Your task to perform on an android device: open app "Duolingo: language lessons" Image 0: 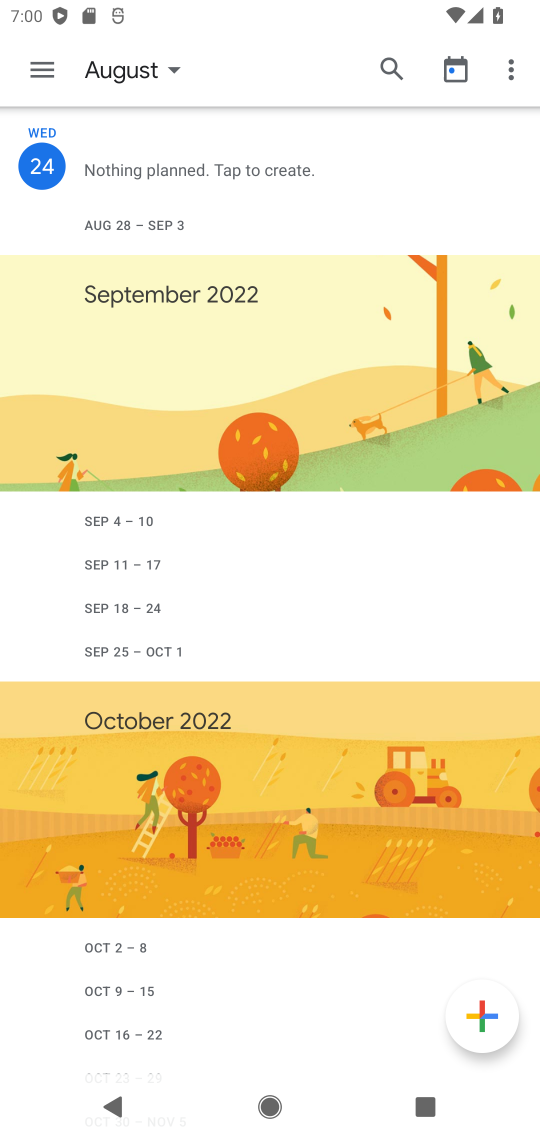
Step 0: press home button
Your task to perform on an android device: open app "Duolingo: language lessons" Image 1: 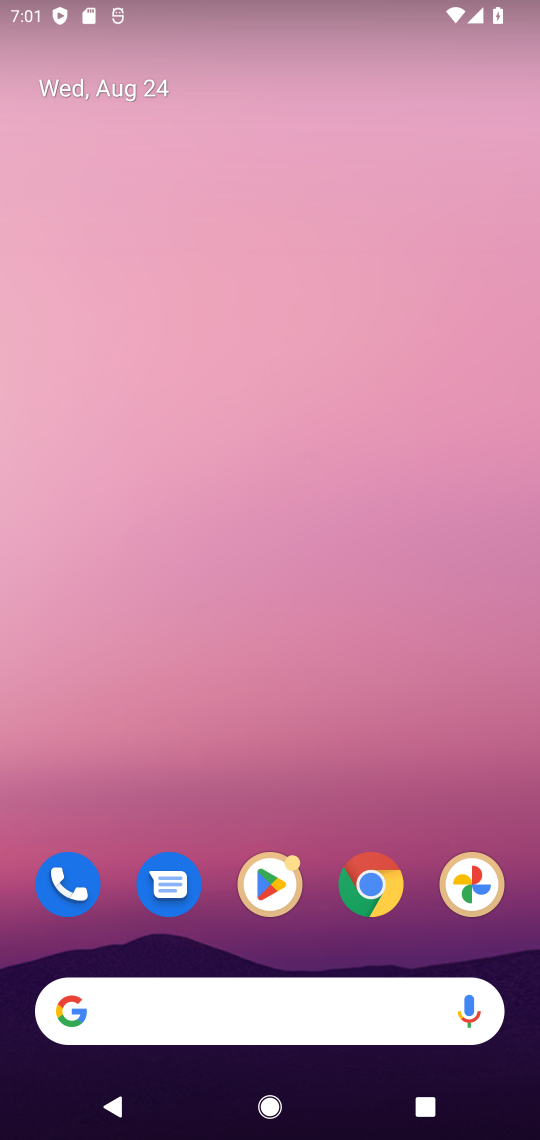
Step 1: click (266, 881)
Your task to perform on an android device: open app "Duolingo: language lessons" Image 2: 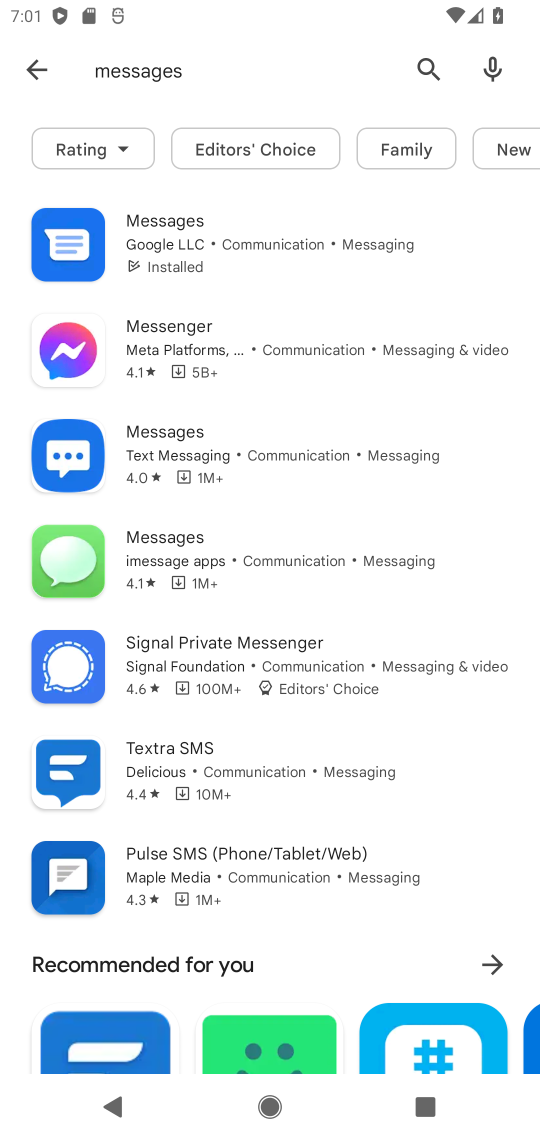
Step 2: click (445, 63)
Your task to perform on an android device: open app "Duolingo: language lessons" Image 3: 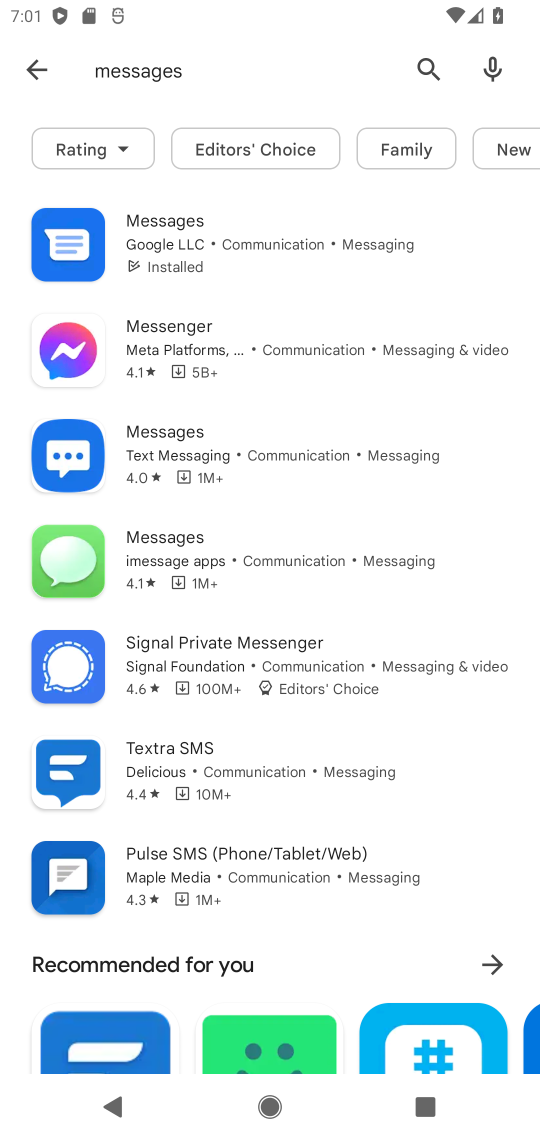
Step 3: click (430, 71)
Your task to perform on an android device: open app "Duolingo: language lessons" Image 4: 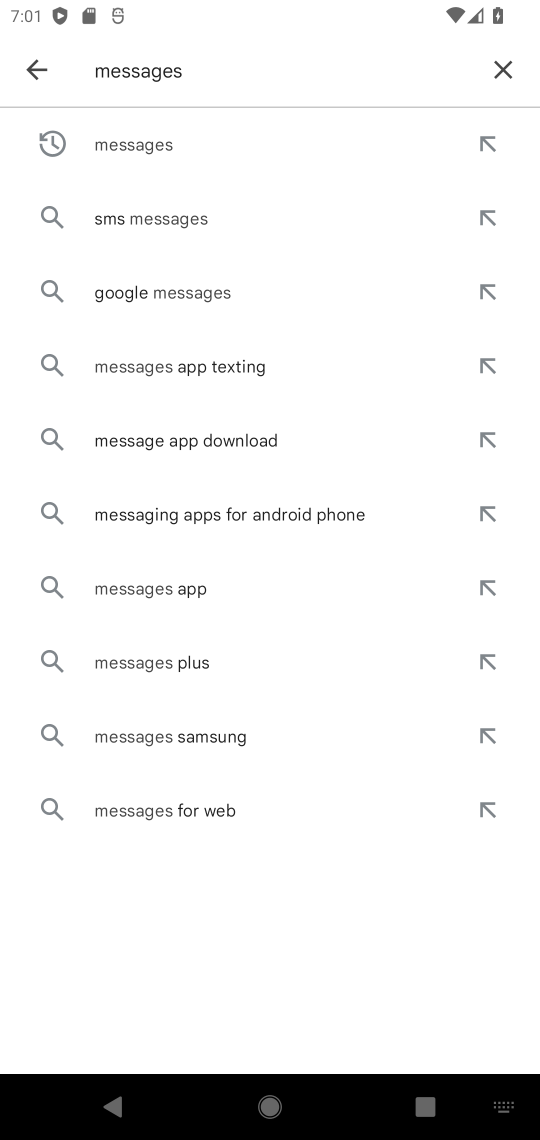
Step 4: click (503, 74)
Your task to perform on an android device: open app "Duolingo: language lessons" Image 5: 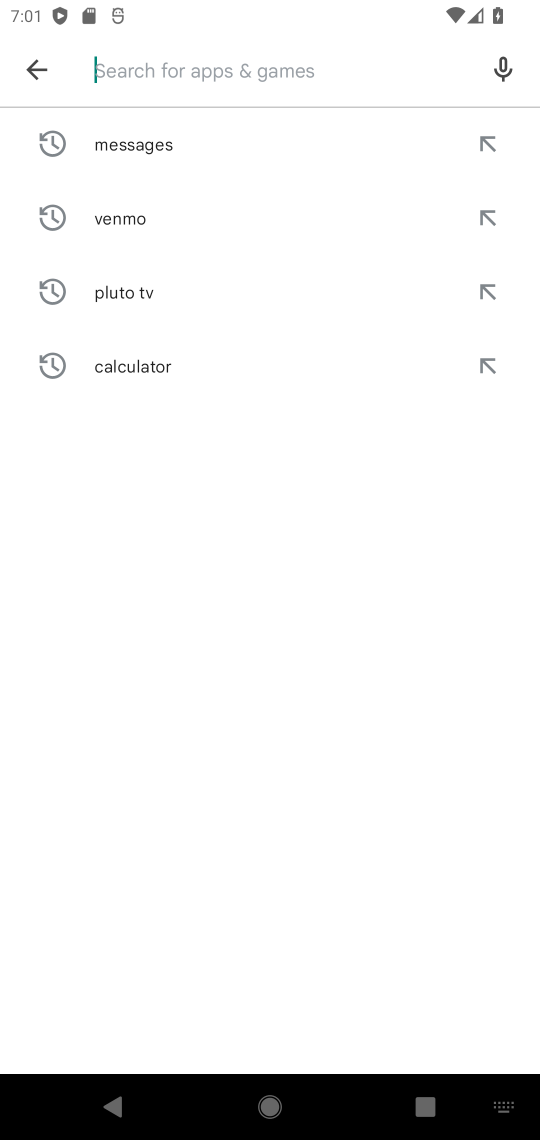
Step 5: type "duolingo"
Your task to perform on an android device: open app "Duolingo: language lessons" Image 6: 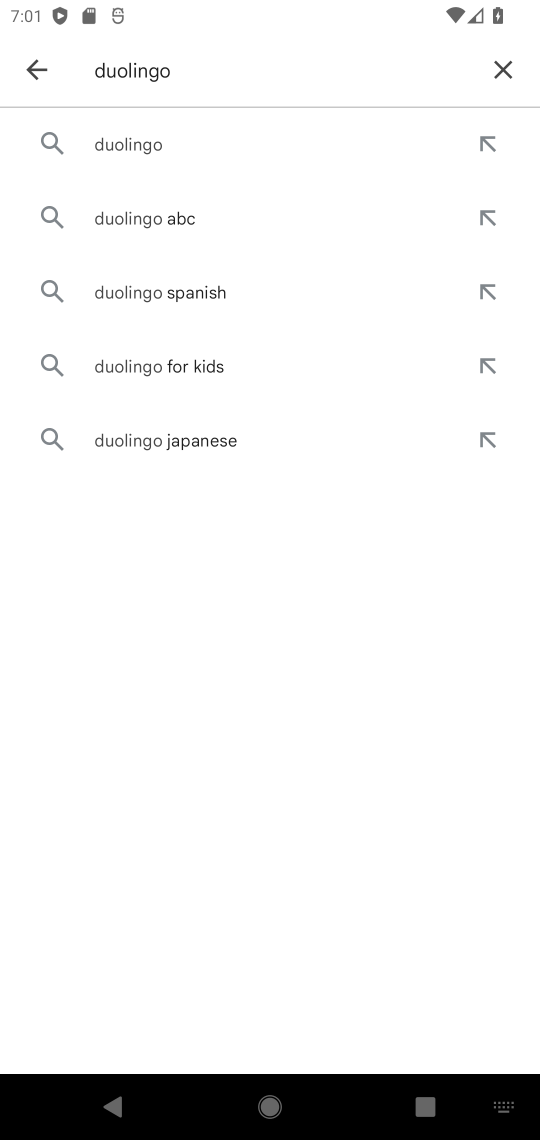
Step 6: click (126, 135)
Your task to perform on an android device: open app "Duolingo: language lessons" Image 7: 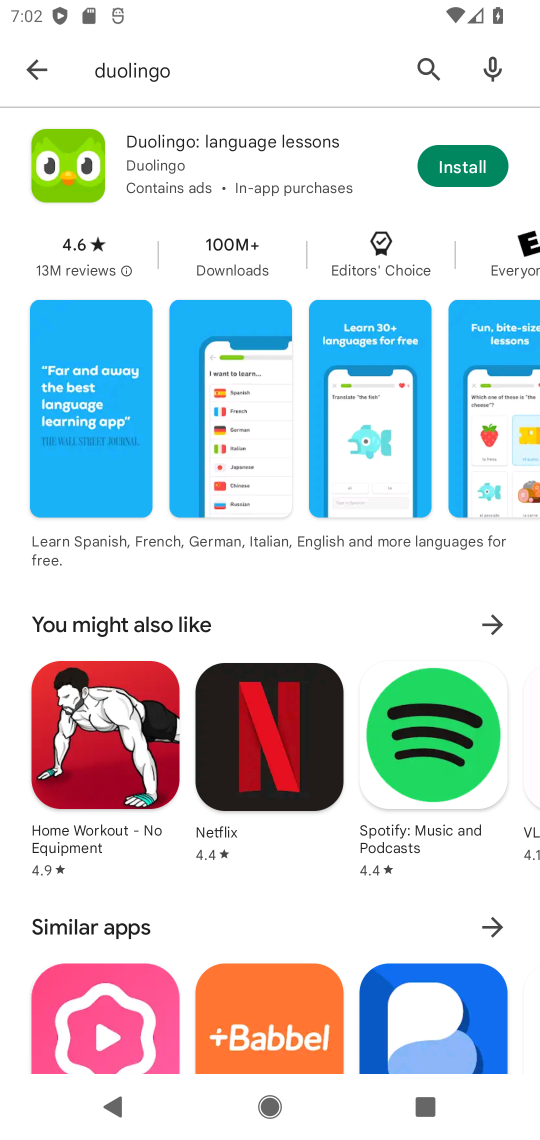
Step 7: task complete